Your task to perform on an android device: Go to Reddit.com Image 0: 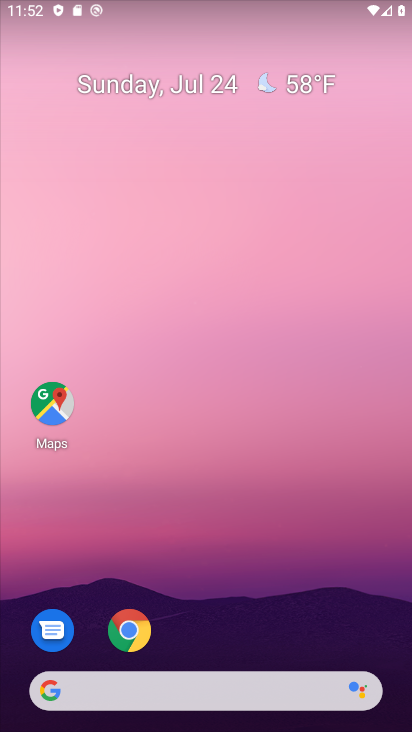
Step 0: click (143, 638)
Your task to perform on an android device: Go to Reddit.com Image 1: 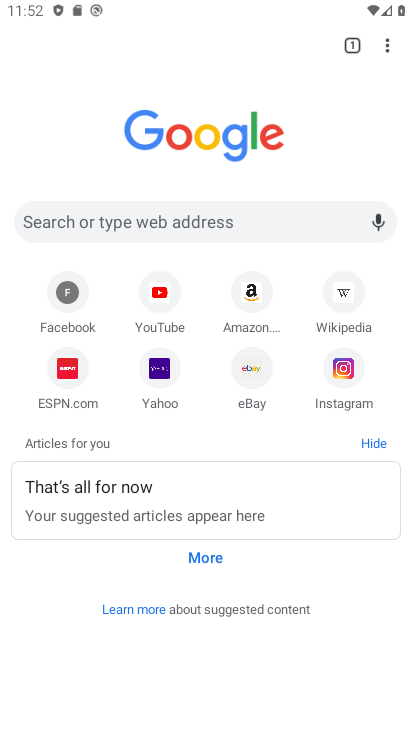
Step 1: click (197, 228)
Your task to perform on an android device: Go to Reddit.com Image 2: 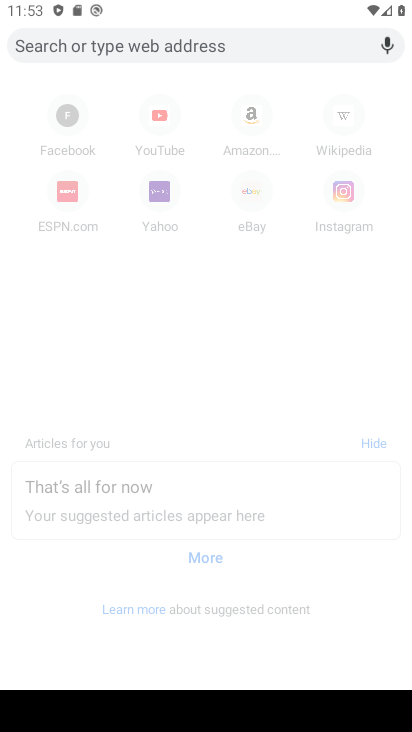
Step 2: type "Reddit.com"
Your task to perform on an android device: Go to Reddit.com Image 3: 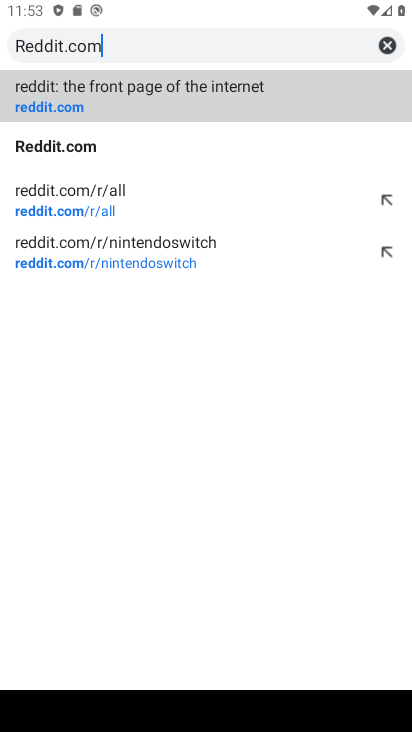
Step 3: click (89, 109)
Your task to perform on an android device: Go to Reddit.com Image 4: 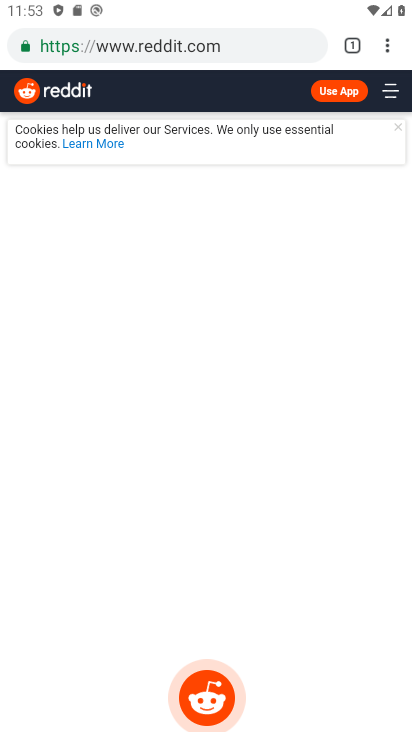
Step 4: task complete